Your task to perform on an android device: Go to display settings Image 0: 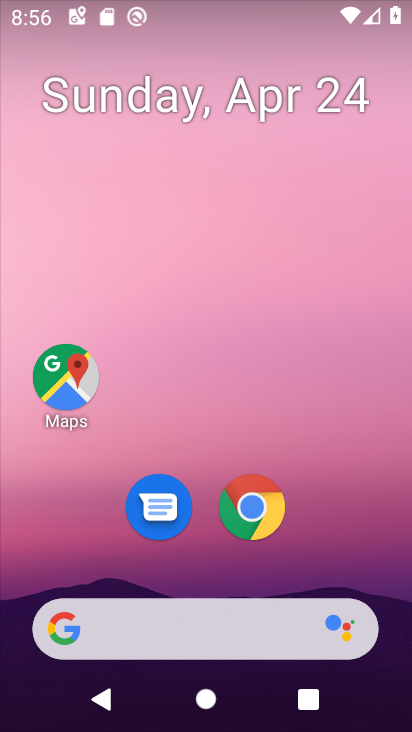
Step 0: drag from (327, 433) to (274, 74)
Your task to perform on an android device: Go to display settings Image 1: 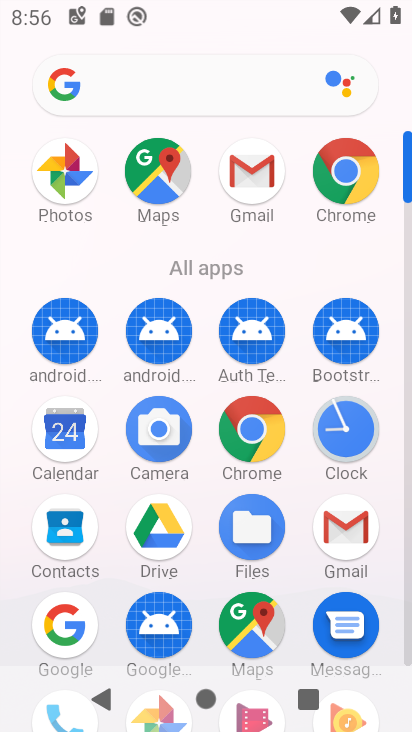
Step 1: drag from (192, 246) to (223, 0)
Your task to perform on an android device: Go to display settings Image 2: 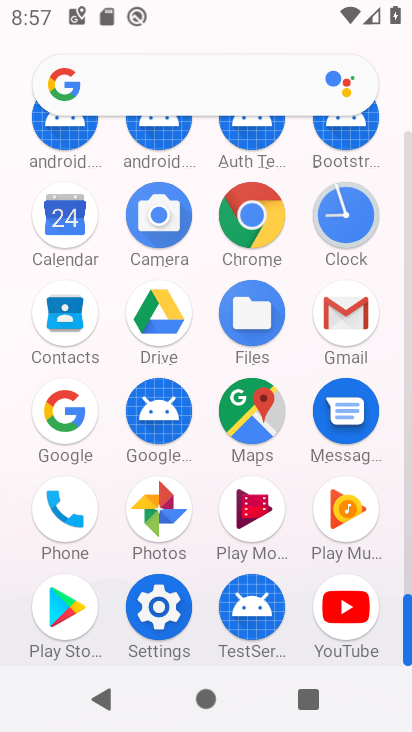
Step 2: click (161, 612)
Your task to perform on an android device: Go to display settings Image 3: 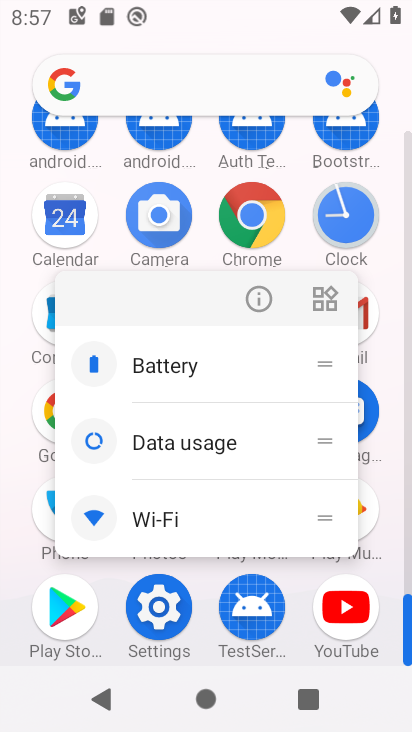
Step 3: click (173, 606)
Your task to perform on an android device: Go to display settings Image 4: 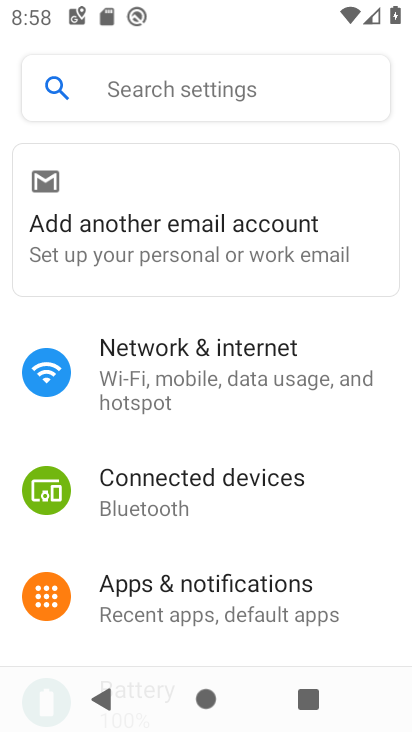
Step 4: drag from (198, 471) to (169, 162)
Your task to perform on an android device: Go to display settings Image 5: 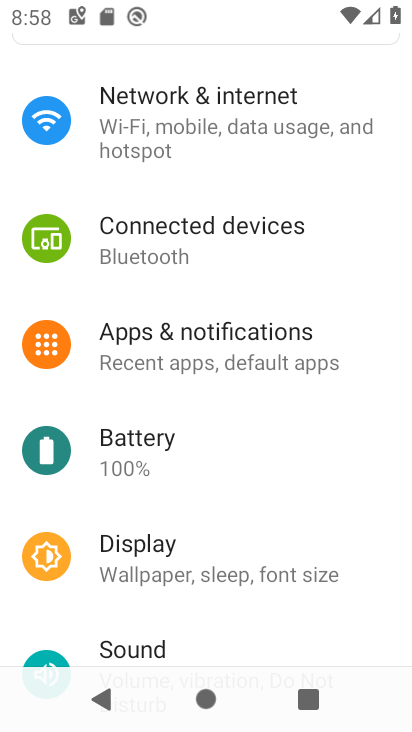
Step 5: click (144, 551)
Your task to perform on an android device: Go to display settings Image 6: 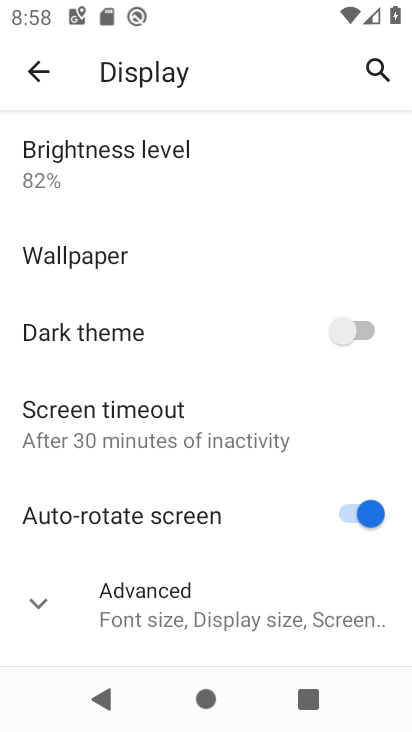
Step 6: task complete